Your task to perform on an android device: open sync settings in chrome Image 0: 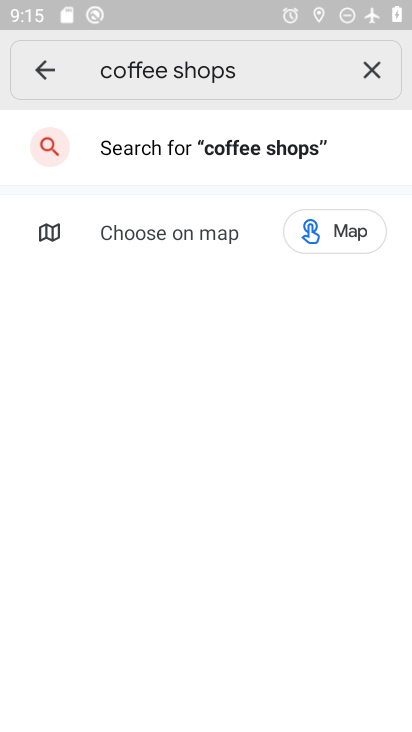
Step 0: press home button
Your task to perform on an android device: open sync settings in chrome Image 1: 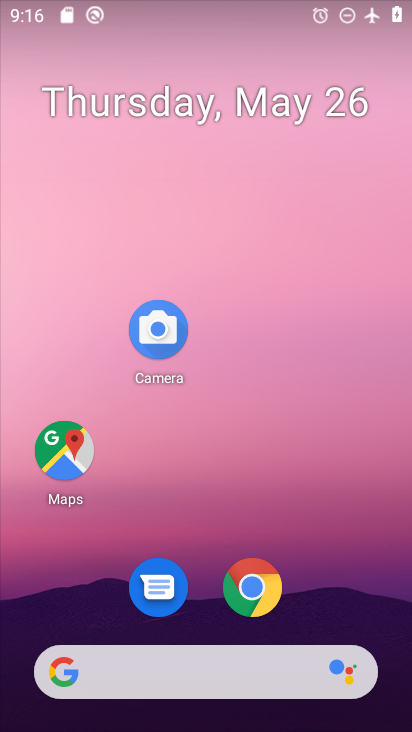
Step 1: click (268, 606)
Your task to perform on an android device: open sync settings in chrome Image 2: 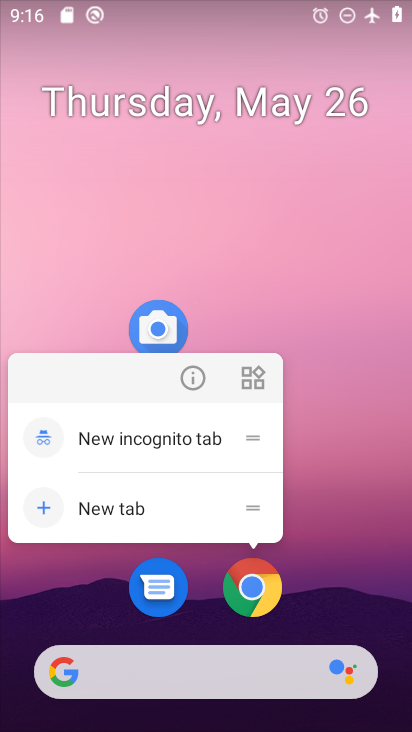
Step 2: click (268, 606)
Your task to perform on an android device: open sync settings in chrome Image 3: 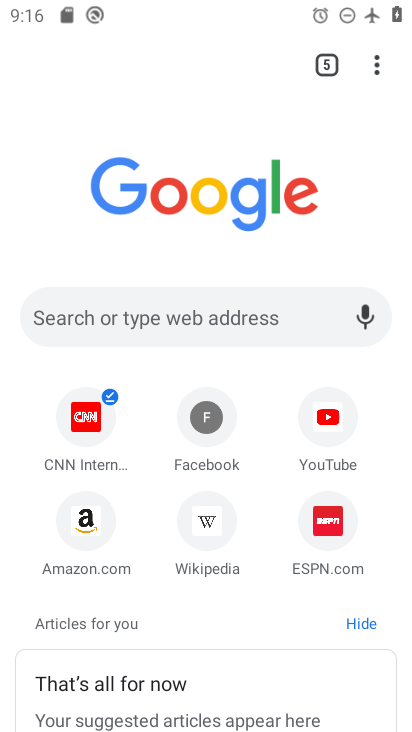
Step 3: drag from (368, 49) to (165, 546)
Your task to perform on an android device: open sync settings in chrome Image 4: 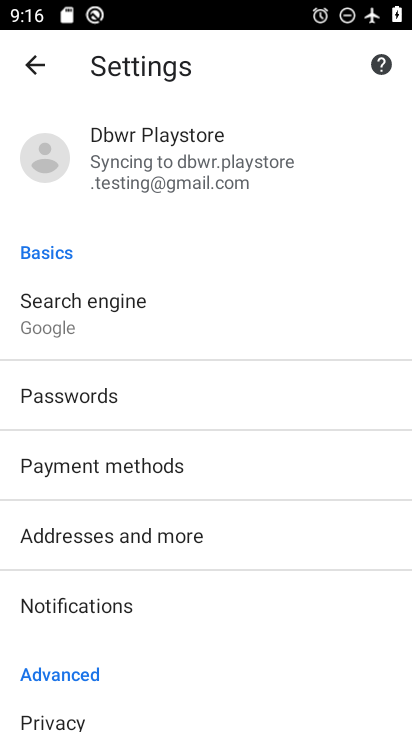
Step 4: click (182, 187)
Your task to perform on an android device: open sync settings in chrome Image 5: 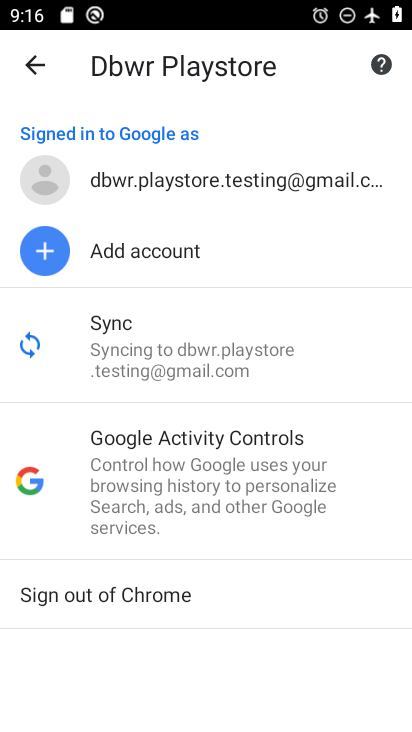
Step 5: click (260, 357)
Your task to perform on an android device: open sync settings in chrome Image 6: 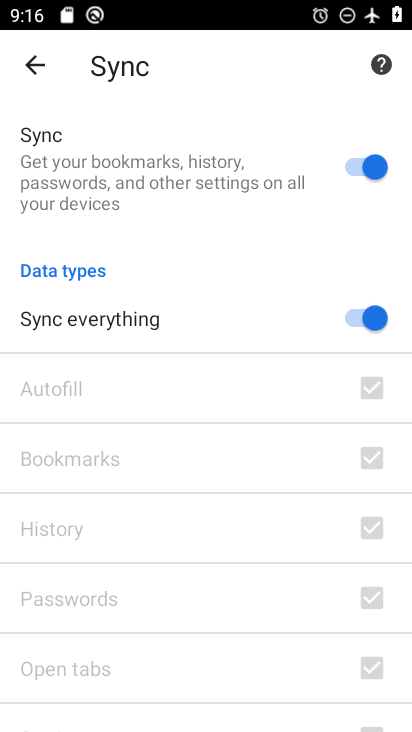
Step 6: task complete